Your task to perform on an android device: Show me popular games on the Play Store Image 0: 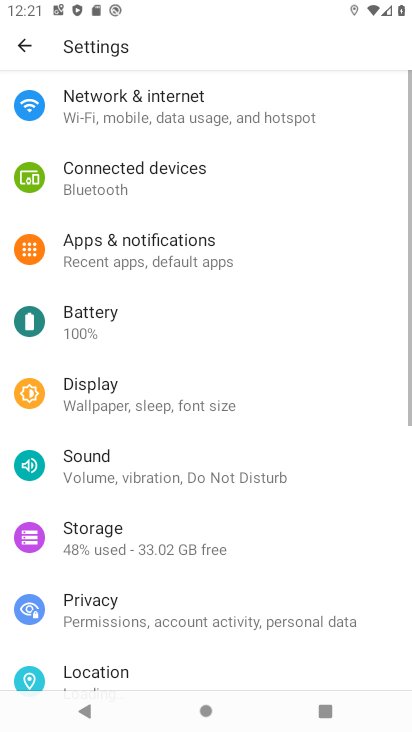
Step 0: press home button
Your task to perform on an android device: Show me popular games on the Play Store Image 1: 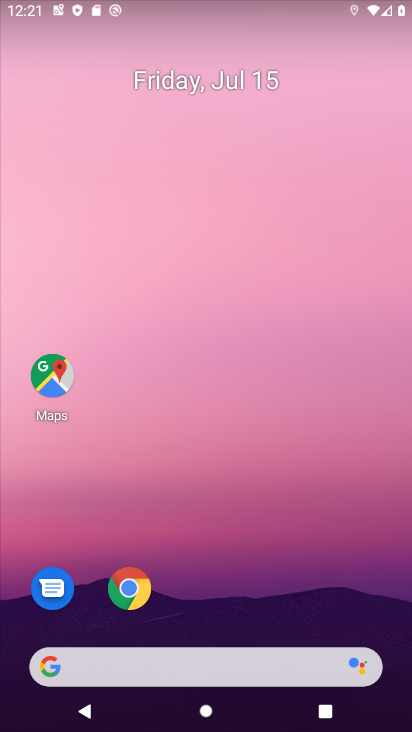
Step 1: drag from (298, 641) to (367, 25)
Your task to perform on an android device: Show me popular games on the Play Store Image 2: 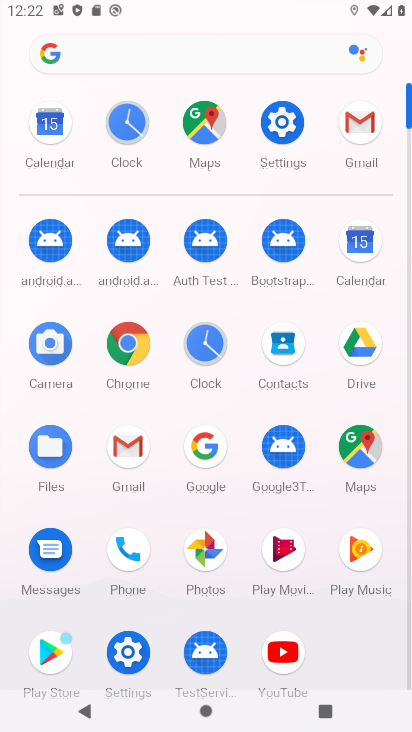
Step 2: click (48, 650)
Your task to perform on an android device: Show me popular games on the Play Store Image 3: 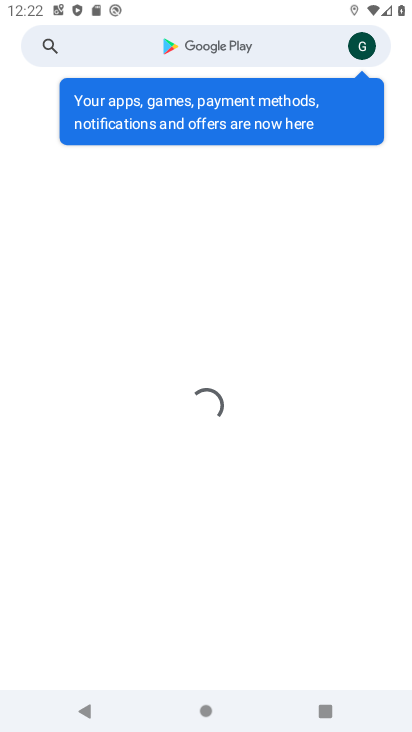
Step 3: click (217, 33)
Your task to perform on an android device: Show me popular games on the Play Store Image 4: 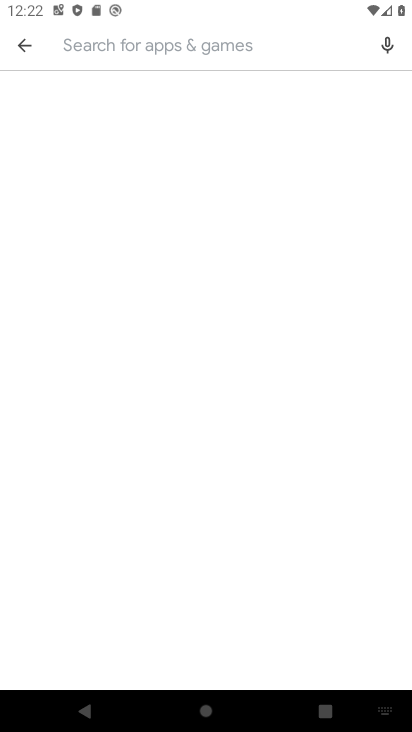
Step 4: click (17, 46)
Your task to perform on an android device: Show me popular games on the Play Store Image 5: 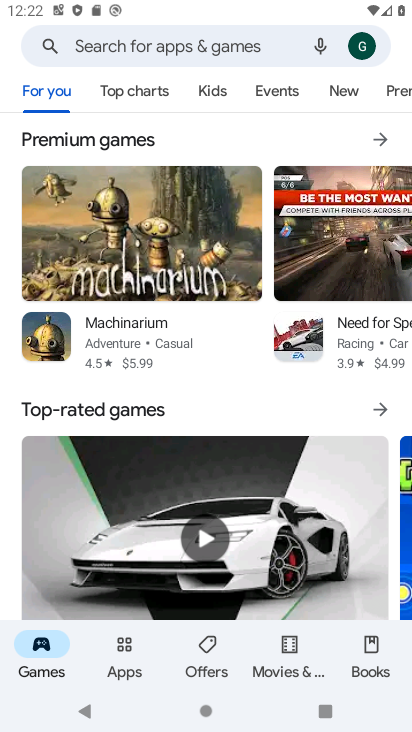
Step 5: task complete